Your task to perform on an android device: Search for pizza restaurants on Maps Image 0: 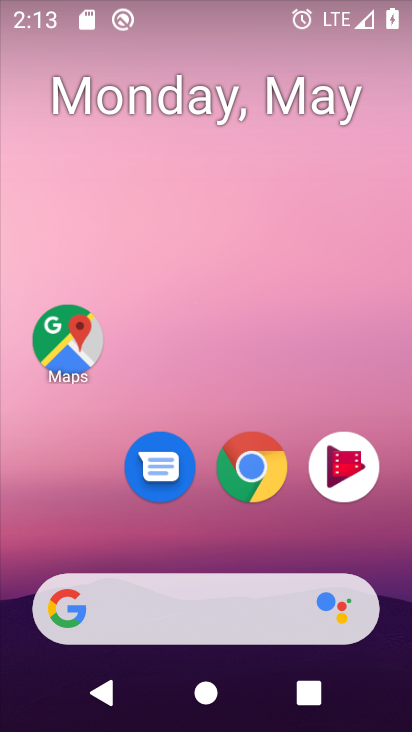
Step 0: click (51, 323)
Your task to perform on an android device: Search for pizza restaurants on Maps Image 1: 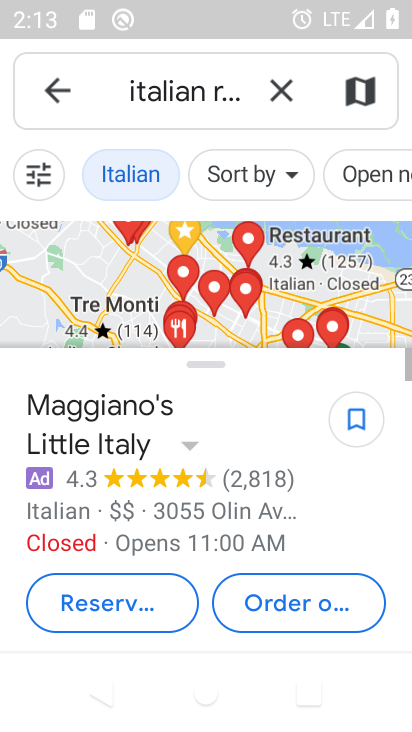
Step 1: click (266, 81)
Your task to perform on an android device: Search for pizza restaurants on Maps Image 2: 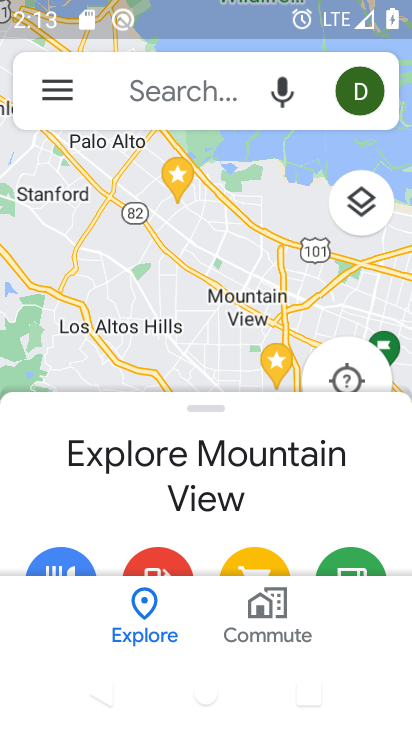
Step 2: click (202, 87)
Your task to perform on an android device: Search for pizza restaurants on Maps Image 3: 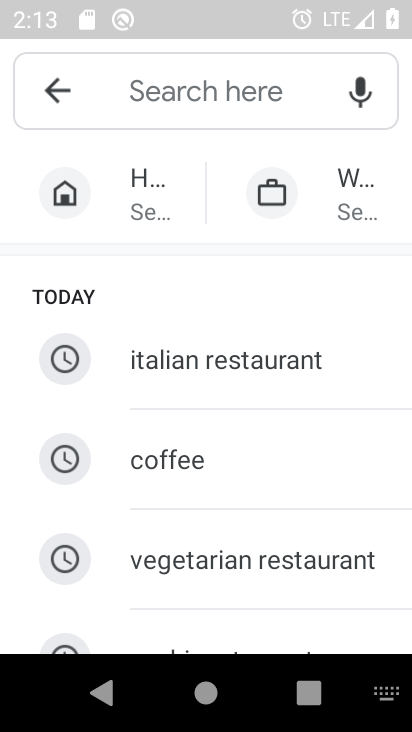
Step 3: drag from (203, 572) to (255, 350)
Your task to perform on an android device: Search for pizza restaurants on Maps Image 4: 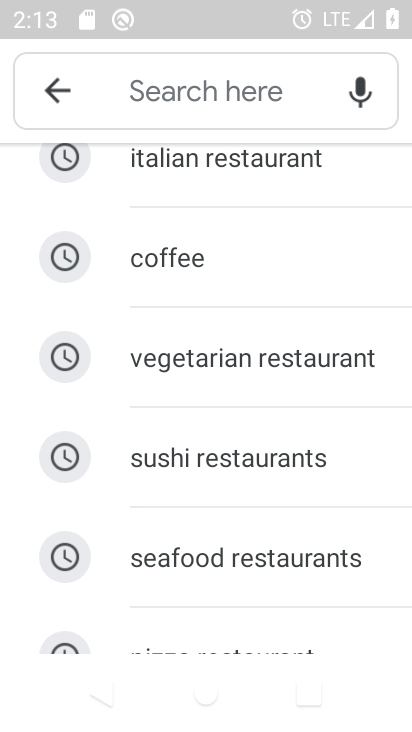
Step 4: drag from (234, 548) to (279, 344)
Your task to perform on an android device: Search for pizza restaurants on Maps Image 5: 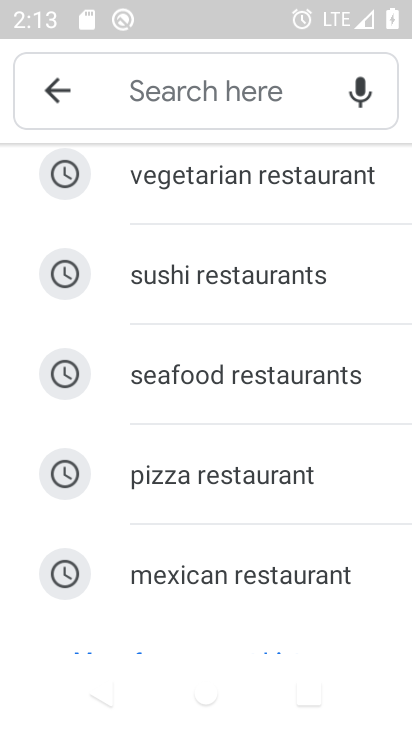
Step 5: click (200, 464)
Your task to perform on an android device: Search for pizza restaurants on Maps Image 6: 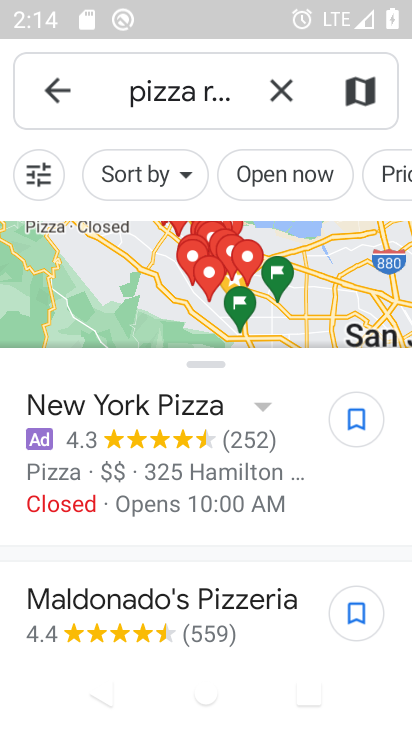
Step 6: task complete